Your task to perform on an android device: Open my contact list Image 0: 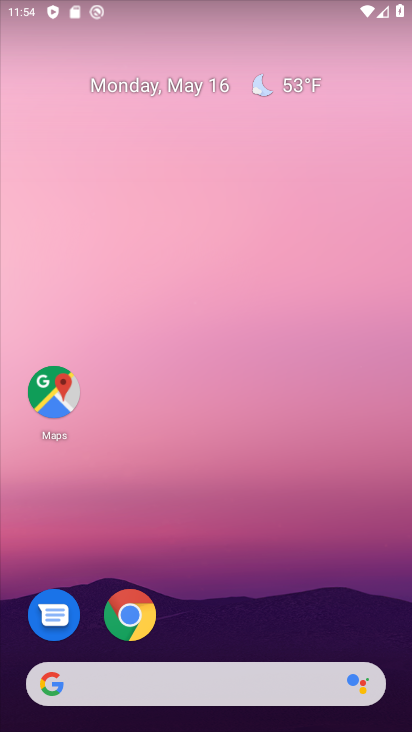
Step 0: drag from (331, 613) to (200, 57)
Your task to perform on an android device: Open my contact list Image 1: 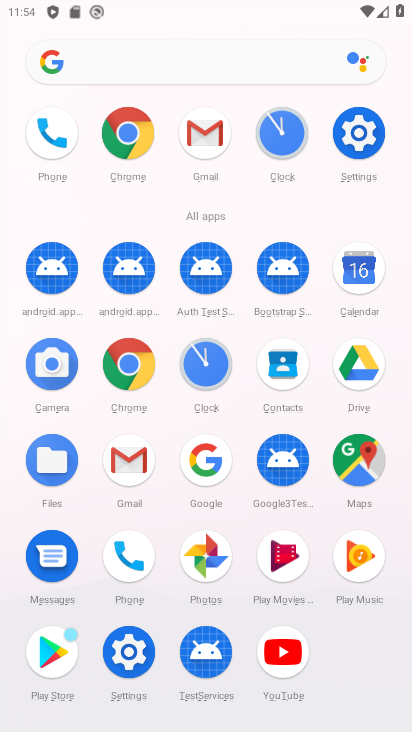
Step 1: click (282, 398)
Your task to perform on an android device: Open my contact list Image 2: 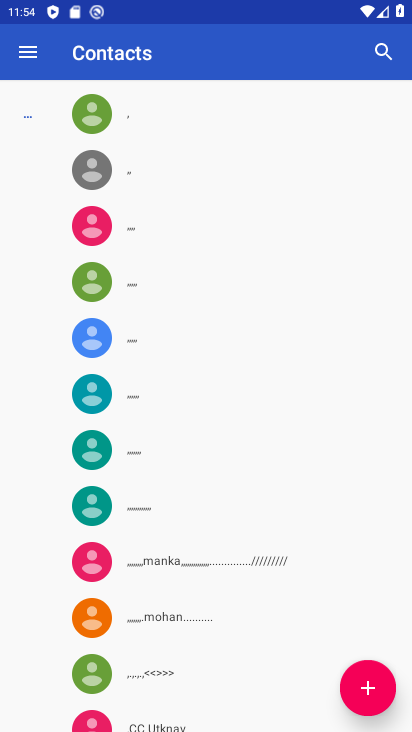
Step 2: task complete